Your task to perform on an android device: open a bookmark in the chrome app Image 0: 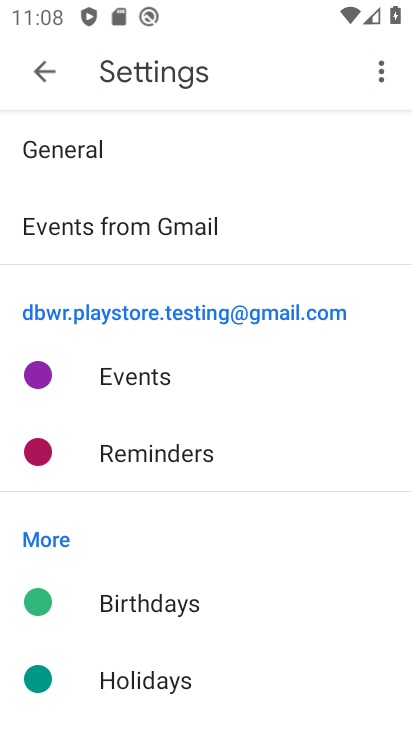
Step 0: press home button
Your task to perform on an android device: open a bookmark in the chrome app Image 1: 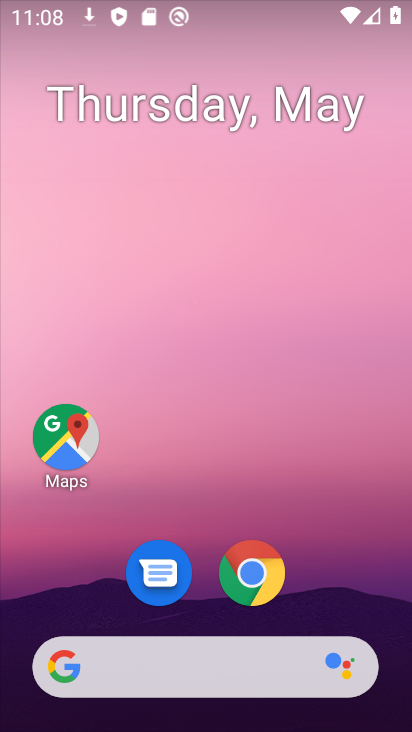
Step 1: click (273, 566)
Your task to perform on an android device: open a bookmark in the chrome app Image 2: 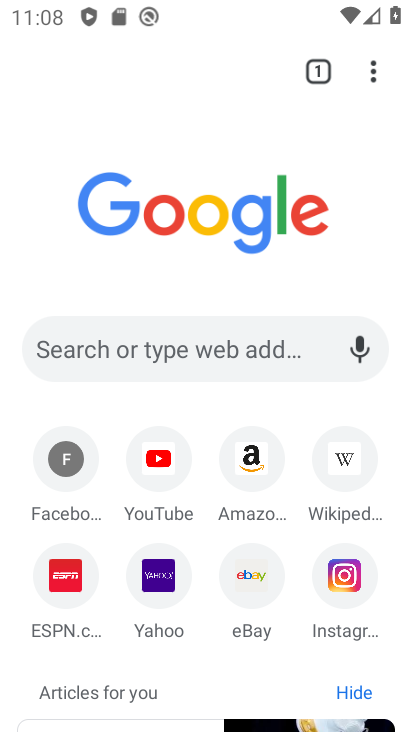
Step 2: task complete